Your task to perform on an android device: turn pop-ups on in chrome Image 0: 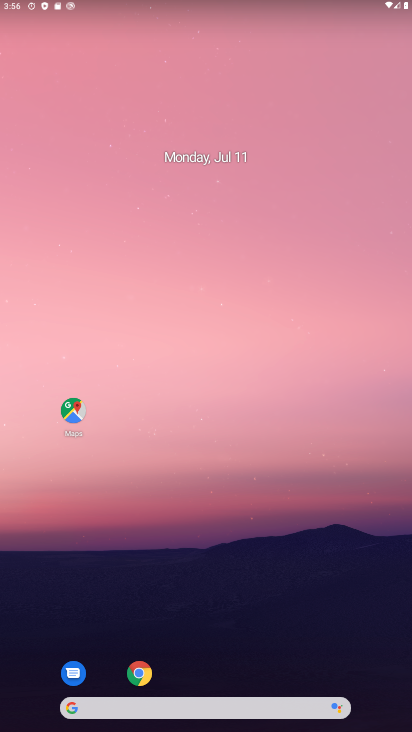
Step 0: click (139, 674)
Your task to perform on an android device: turn pop-ups on in chrome Image 1: 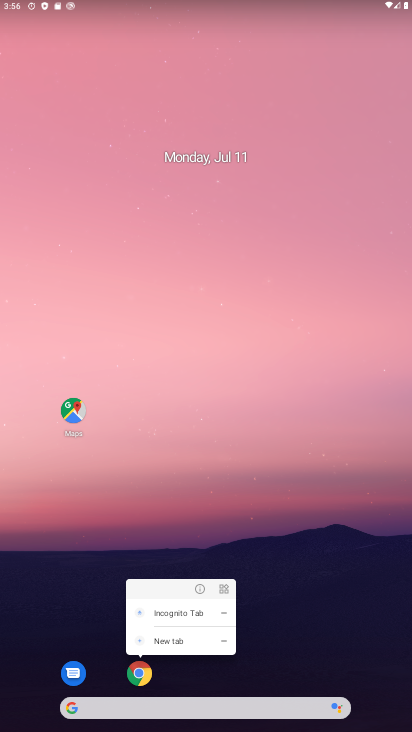
Step 1: click (275, 612)
Your task to perform on an android device: turn pop-ups on in chrome Image 2: 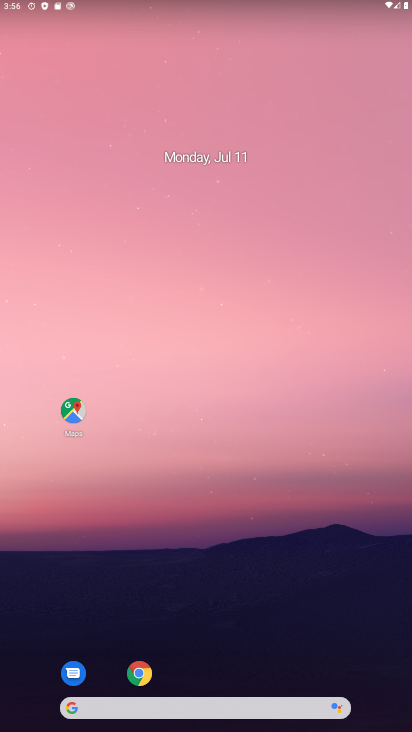
Step 2: click (143, 666)
Your task to perform on an android device: turn pop-ups on in chrome Image 3: 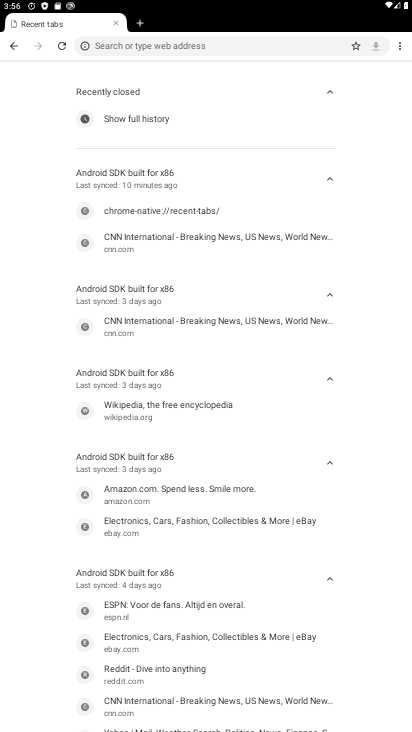
Step 3: drag from (398, 42) to (328, 209)
Your task to perform on an android device: turn pop-ups on in chrome Image 4: 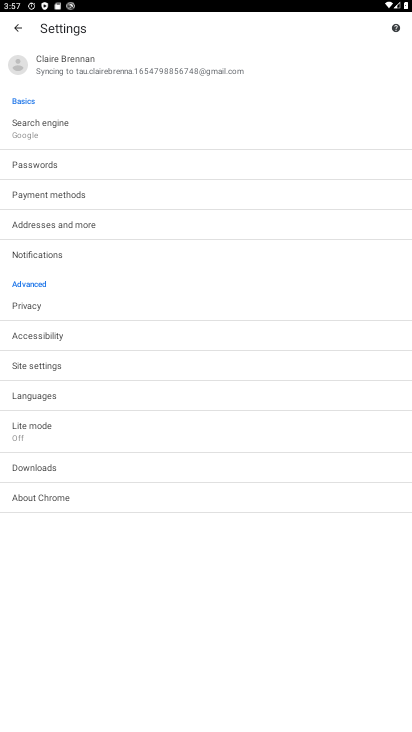
Step 4: click (48, 361)
Your task to perform on an android device: turn pop-ups on in chrome Image 5: 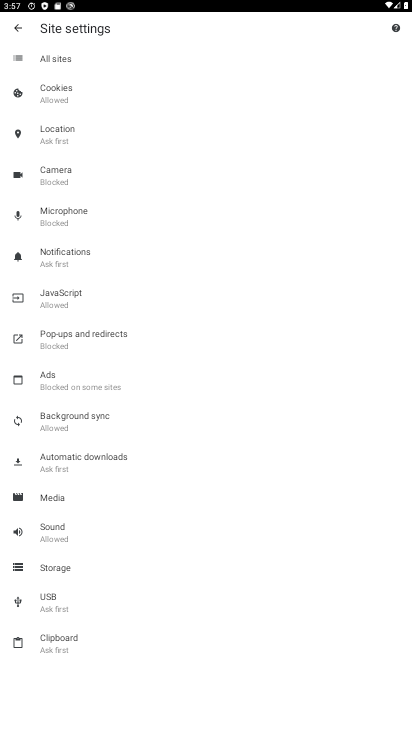
Step 5: click (104, 332)
Your task to perform on an android device: turn pop-ups on in chrome Image 6: 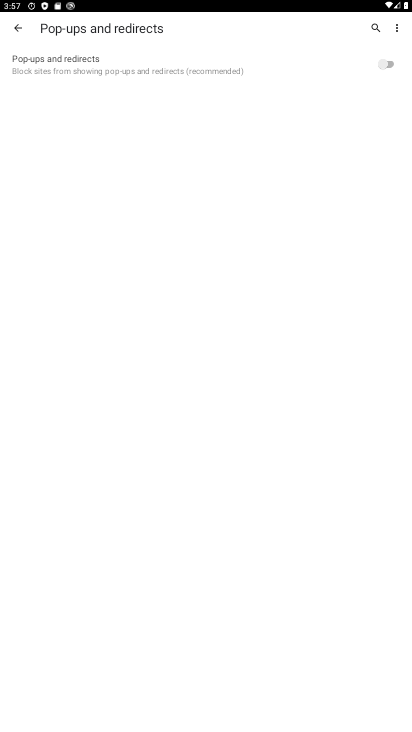
Step 6: click (393, 59)
Your task to perform on an android device: turn pop-ups on in chrome Image 7: 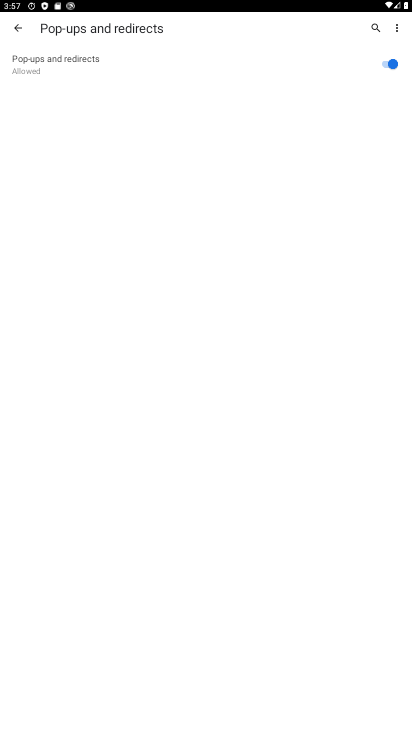
Step 7: task complete